Your task to perform on an android device: open app "AliExpress" (install if not already installed) Image 0: 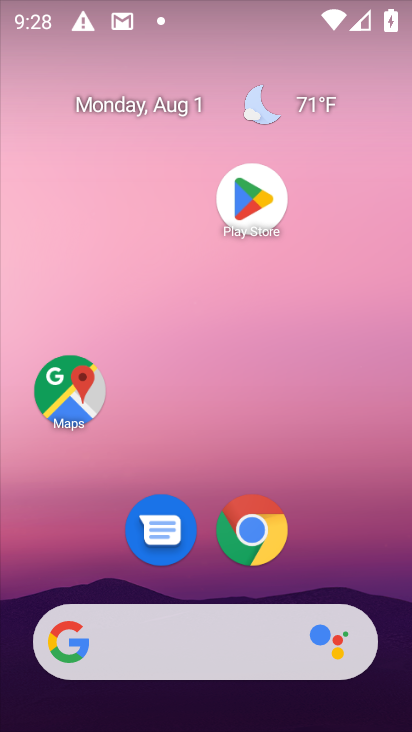
Step 0: click (273, 188)
Your task to perform on an android device: open app "AliExpress" (install if not already installed) Image 1: 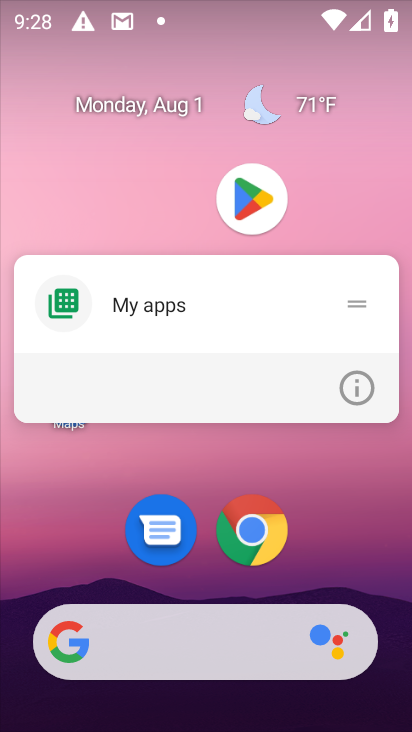
Step 1: click (273, 188)
Your task to perform on an android device: open app "AliExpress" (install if not already installed) Image 2: 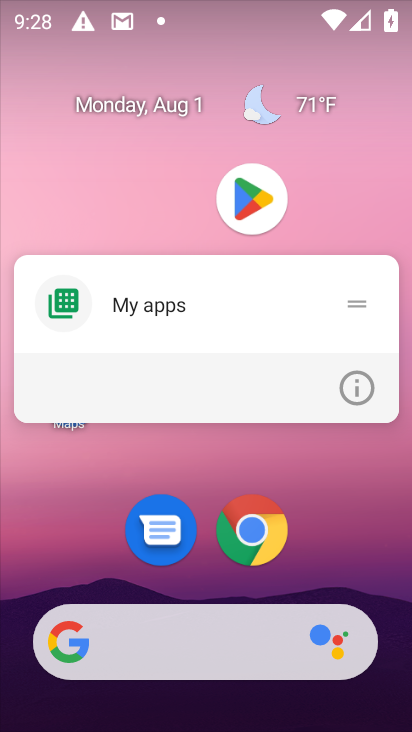
Step 2: click (228, 199)
Your task to perform on an android device: open app "AliExpress" (install if not already installed) Image 3: 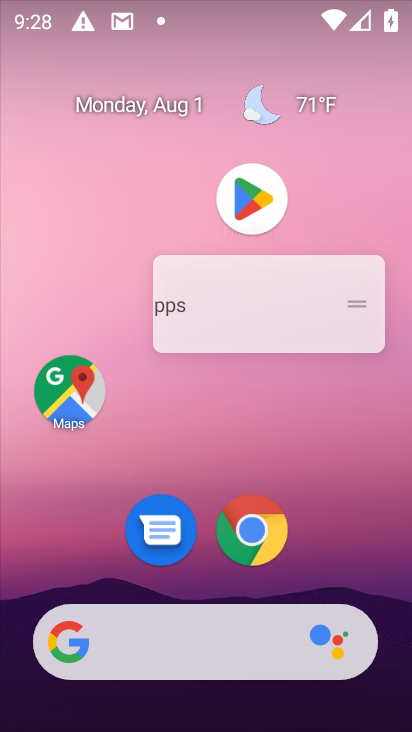
Step 3: click (228, 199)
Your task to perform on an android device: open app "AliExpress" (install if not already installed) Image 4: 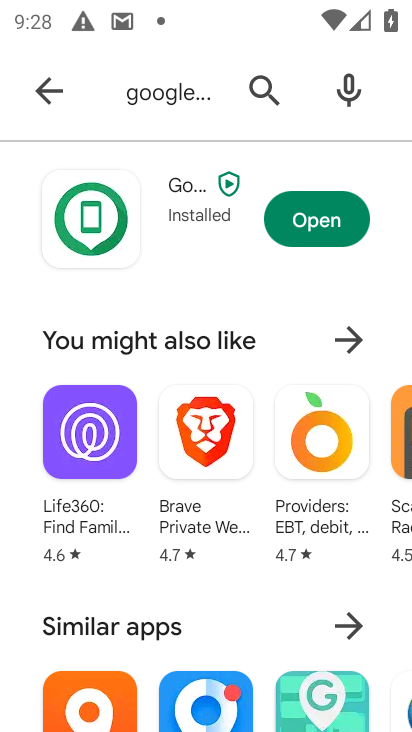
Step 4: click (269, 90)
Your task to perform on an android device: open app "AliExpress" (install if not already installed) Image 5: 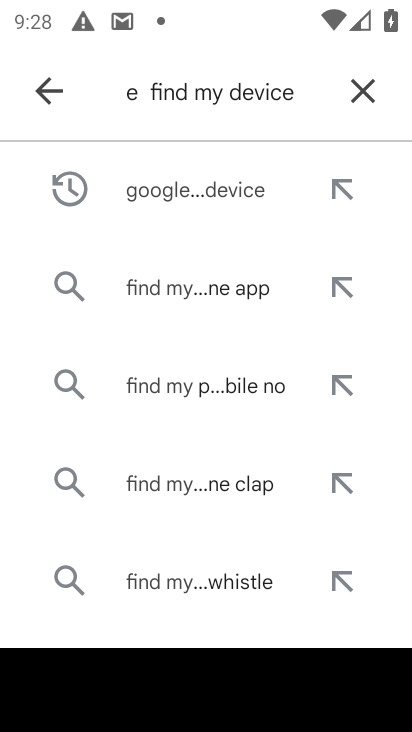
Step 5: click (369, 90)
Your task to perform on an android device: open app "AliExpress" (install if not already installed) Image 6: 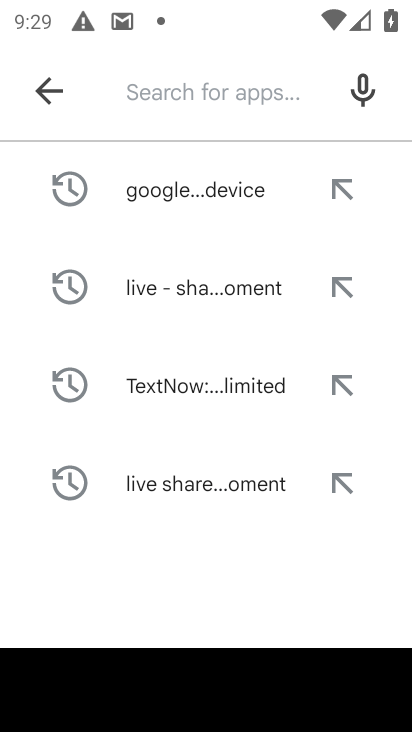
Step 6: type "AliExpress"
Your task to perform on an android device: open app "AliExpress" (install if not already installed) Image 7: 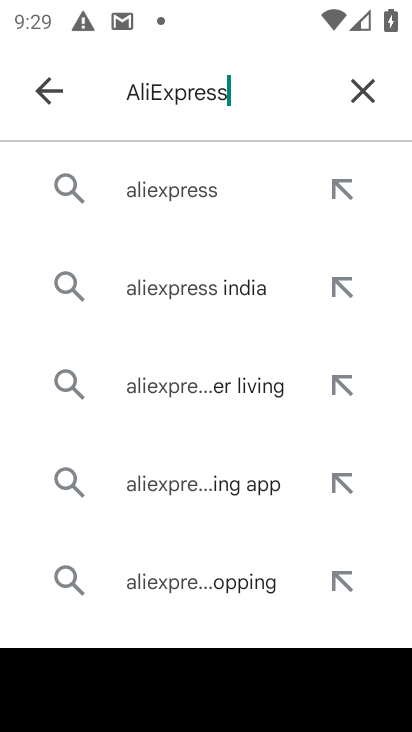
Step 7: click (209, 191)
Your task to perform on an android device: open app "AliExpress" (install if not already installed) Image 8: 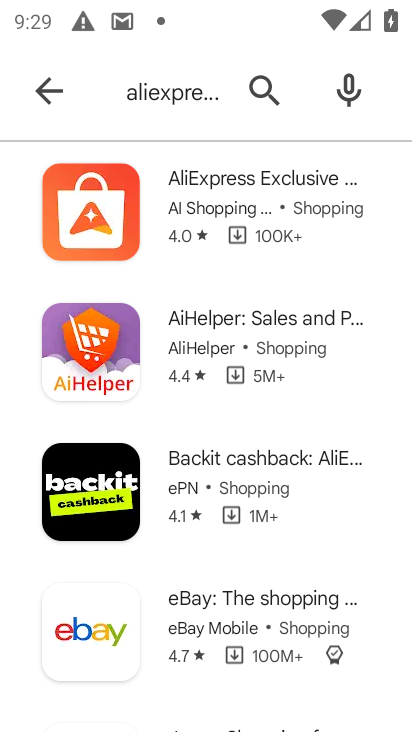
Step 8: click (244, 167)
Your task to perform on an android device: open app "AliExpress" (install if not already installed) Image 9: 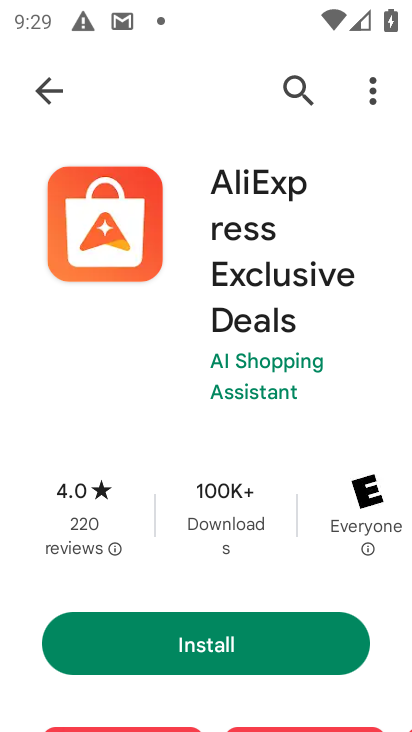
Step 9: task complete